Your task to perform on an android device: change the upload size in google photos Image 0: 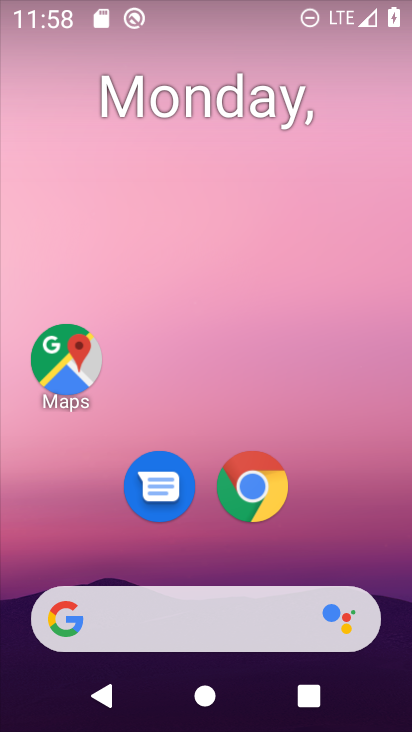
Step 0: drag from (10, 621) to (257, 258)
Your task to perform on an android device: change the upload size in google photos Image 1: 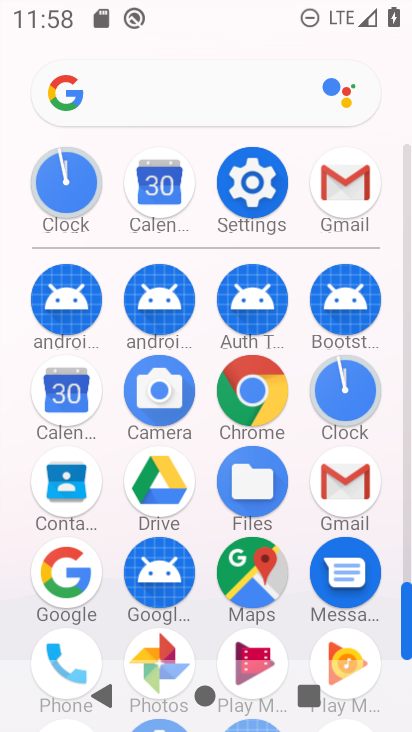
Step 1: click (162, 637)
Your task to perform on an android device: change the upload size in google photos Image 2: 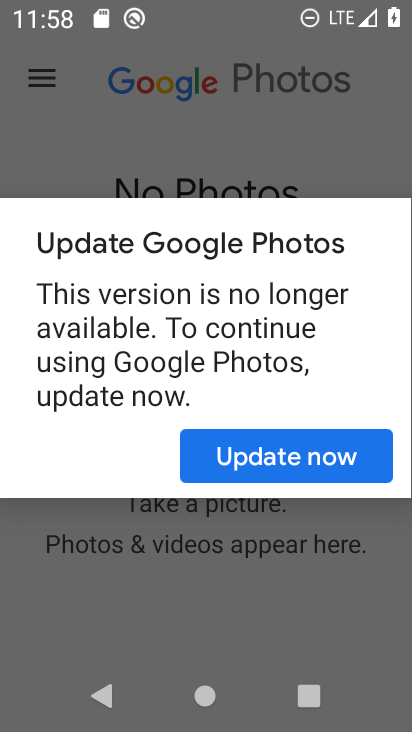
Step 2: click (322, 464)
Your task to perform on an android device: change the upload size in google photos Image 3: 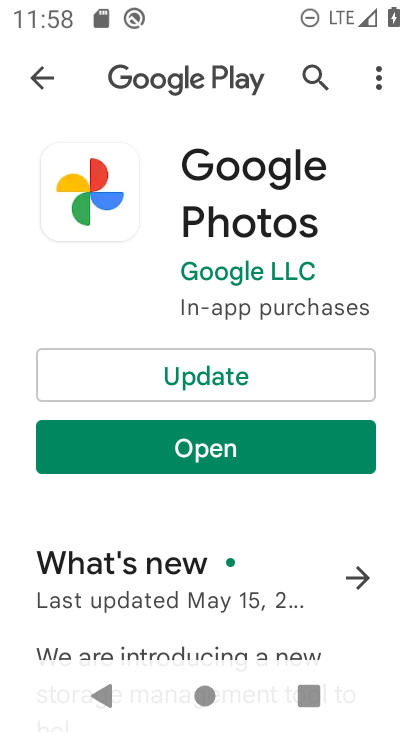
Step 3: click (301, 450)
Your task to perform on an android device: change the upload size in google photos Image 4: 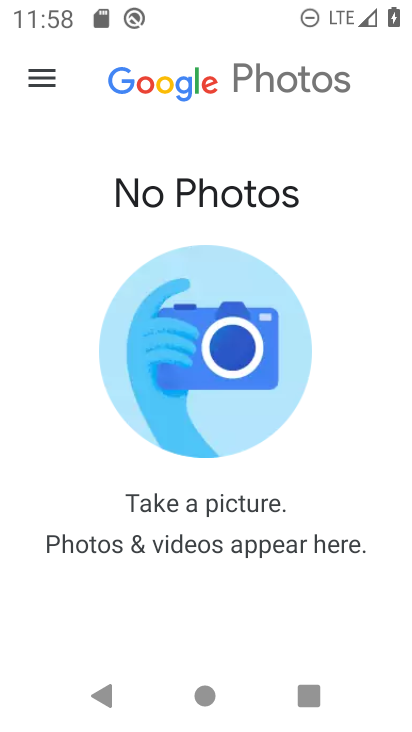
Step 4: click (43, 80)
Your task to perform on an android device: change the upload size in google photos Image 5: 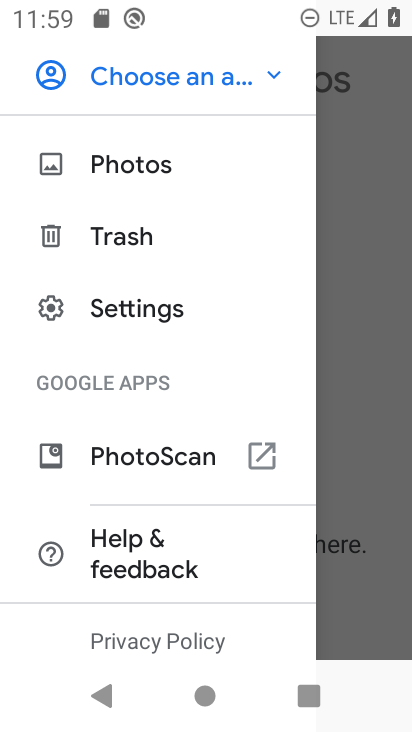
Step 5: click (117, 309)
Your task to perform on an android device: change the upload size in google photos Image 6: 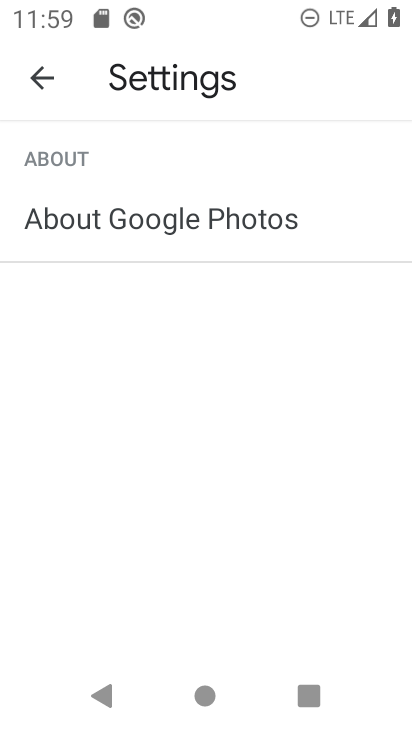
Step 6: click (113, 697)
Your task to perform on an android device: change the upload size in google photos Image 7: 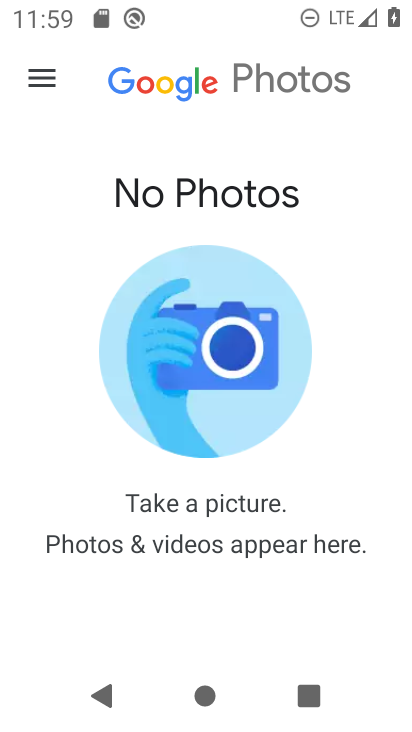
Step 7: click (41, 87)
Your task to perform on an android device: change the upload size in google photos Image 8: 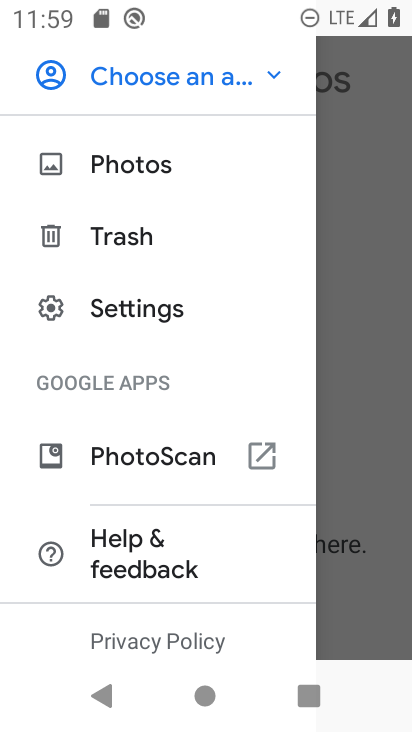
Step 8: drag from (63, 570) to (211, 144)
Your task to perform on an android device: change the upload size in google photos Image 9: 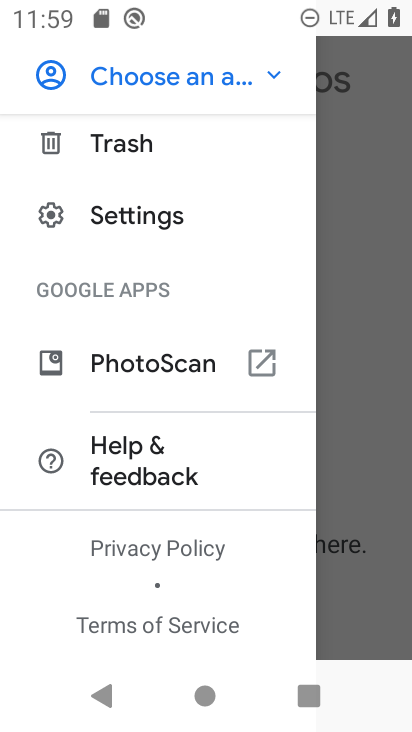
Step 9: drag from (64, 575) to (214, 182)
Your task to perform on an android device: change the upload size in google photos Image 10: 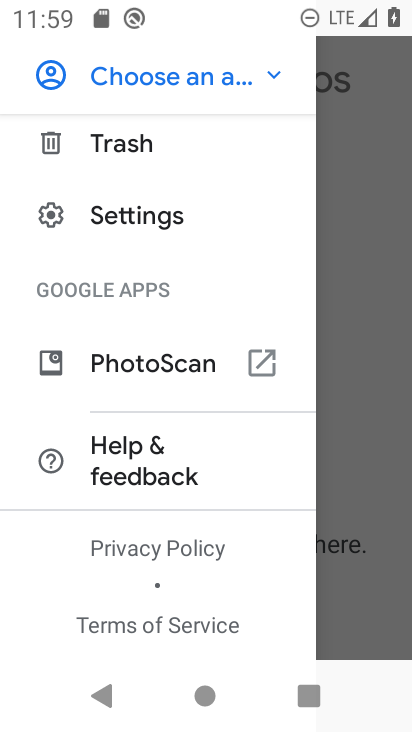
Step 10: drag from (158, 151) to (93, 596)
Your task to perform on an android device: change the upload size in google photos Image 11: 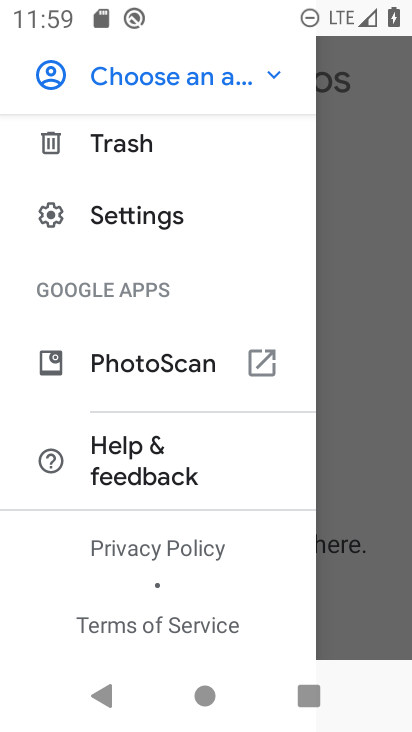
Step 11: drag from (137, 207) to (80, 667)
Your task to perform on an android device: change the upload size in google photos Image 12: 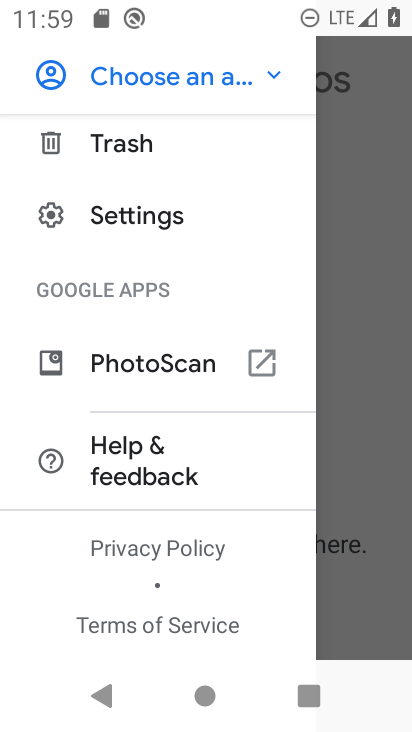
Step 12: click (268, 87)
Your task to perform on an android device: change the upload size in google photos Image 13: 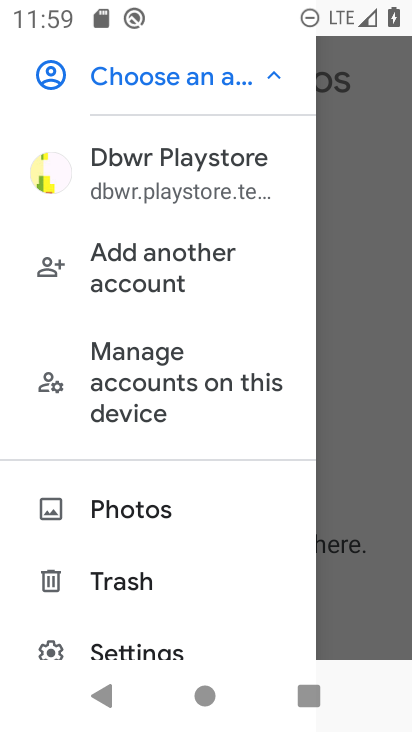
Step 13: click (183, 157)
Your task to perform on an android device: change the upload size in google photos Image 14: 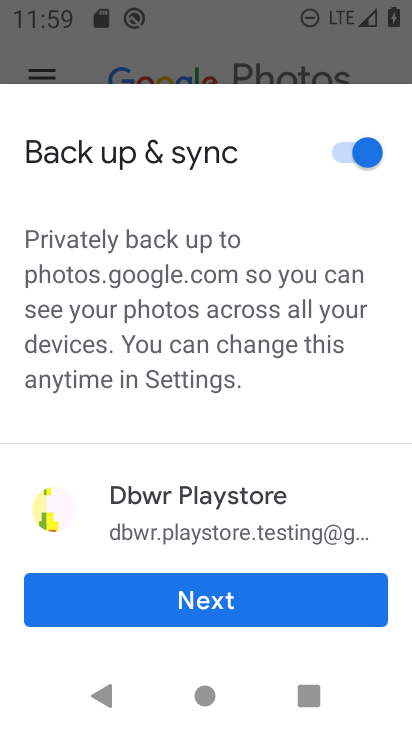
Step 14: click (221, 602)
Your task to perform on an android device: change the upload size in google photos Image 15: 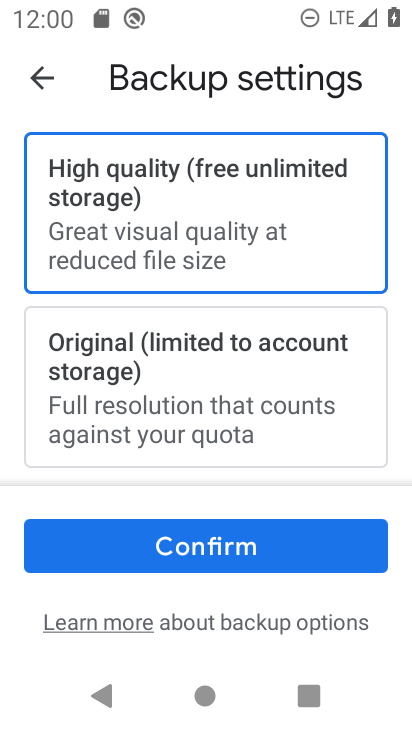
Step 15: click (192, 387)
Your task to perform on an android device: change the upload size in google photos Image 16: 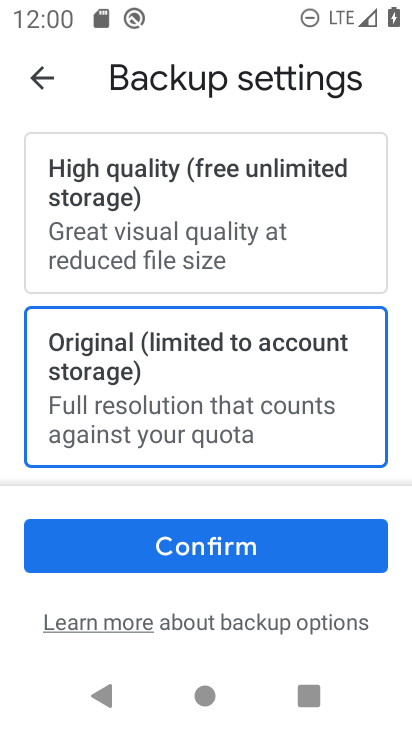
Step 16: click (224, 553)
Your task to perform on an android device: change the upload size in google photos Image 17: 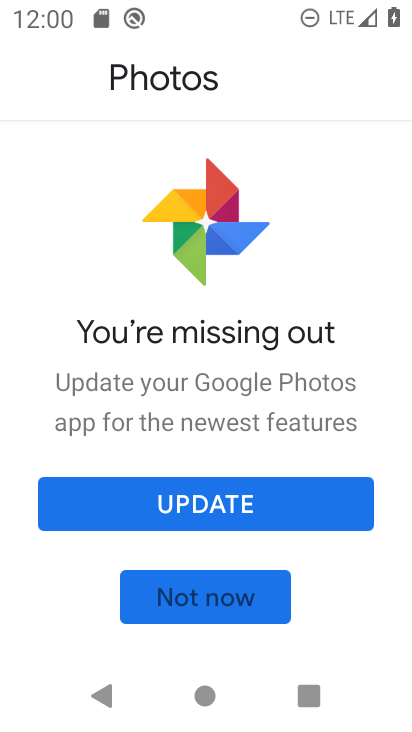
Step 17: task complete